Your task to perform on an android device: turn on javascript in the chrome app Image 0: 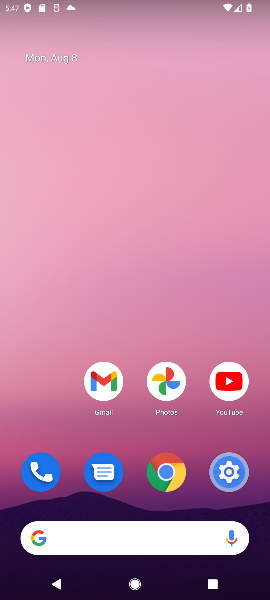
Step 0: press home button
Your task to perform on an android device: turn on javascript in the chrome app Image 1: 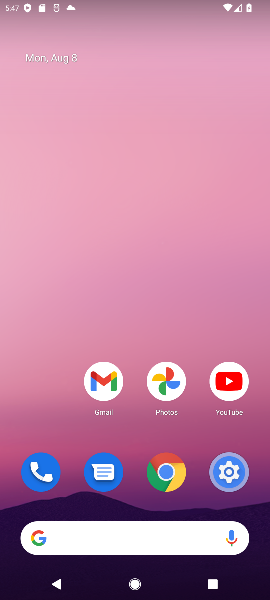
Step 1: click (173, 482)
Your task to perform on an android device: turn on javascript in the chrome app Image 2: 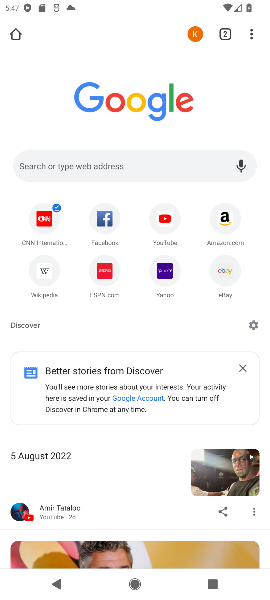
Step 2: drag from (252, 31) to (134, 344)
Your task to perform on an android device: turn on javascript in the chrome app Image 3: 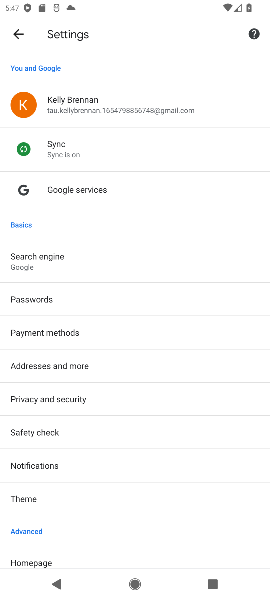
Step 3: drag from (166, 503) to (164, 191)
Your task to perform on an android device: turn on javascript in the chrome app Image 4: 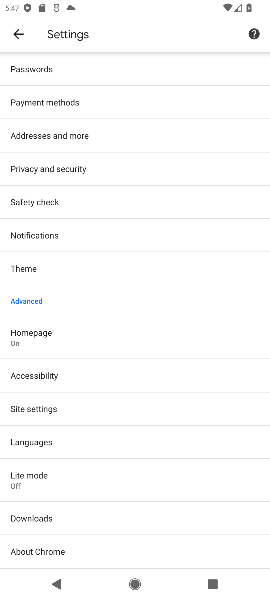
Step 4: click (28, 408)
Your task to perform on an android device: turn on javascript in the chrome app Image 5: 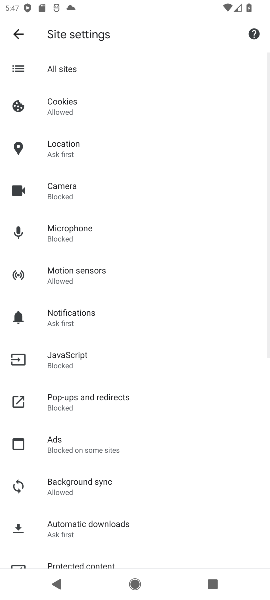
Step 5: click (63, 362)
Your task to perform on an android device: turn on javascript in the chrome app Image 6: 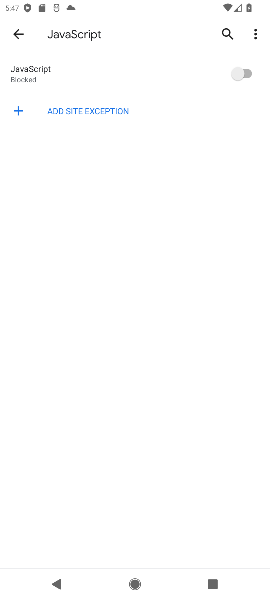
Step 6: click (237, 71)
Your task to perform on an android device: turn on javascript in the chrome app Image 7: 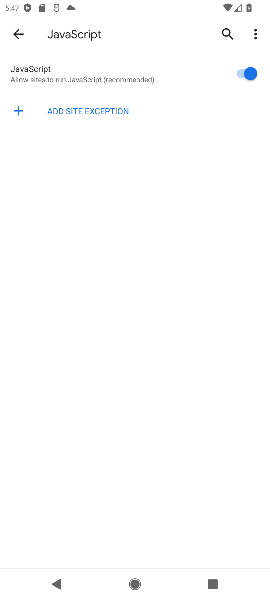
Step 7: task complete